Your task to perform on an android device: Open Google Chrome and open the bookmarks view Image 0: 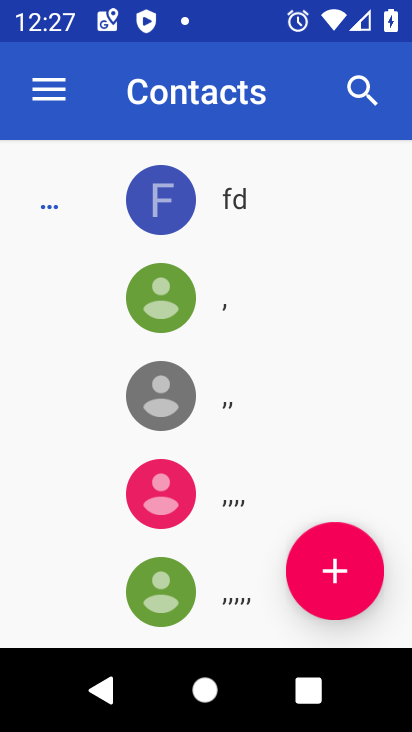
Step 0: press home button
Your task to perform on an android device: Open Google Chrome and open the bookmarks view Image 1: 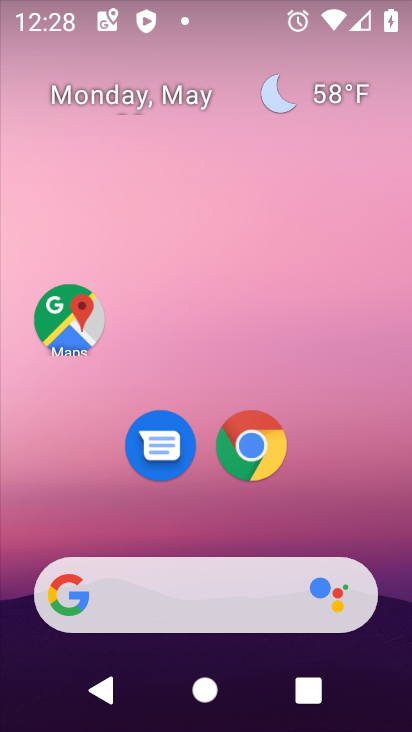
Step 1: drag from (211, 520) to (237, 42)
Your task to perform on an android device: Open Google Chrome and open the bookmarks view Image 2: 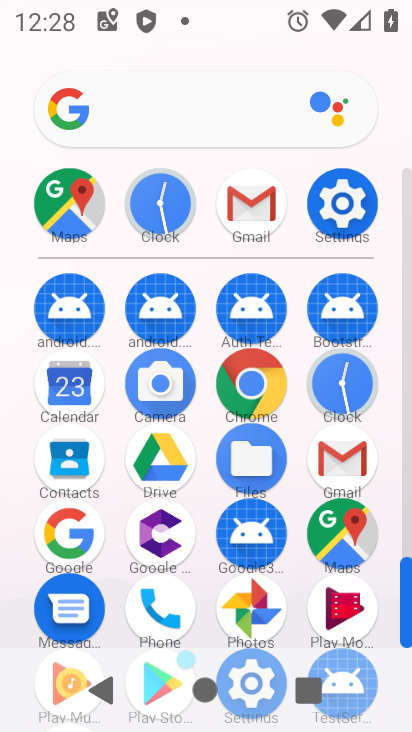
Step 2: click (251, 373)
Your task to perform on an android device: Open Google Chrome and open the bookmarks view Image 3: 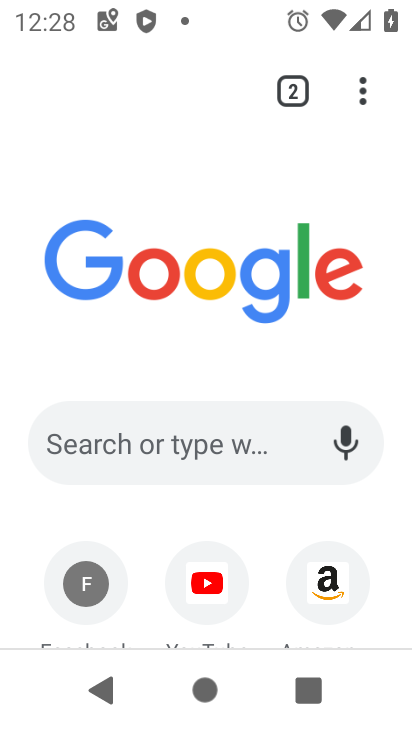
Step 3: click (363, 91)
Your task to perform on an android device: Open Google Chrome and open the bookmarks view Image 4: 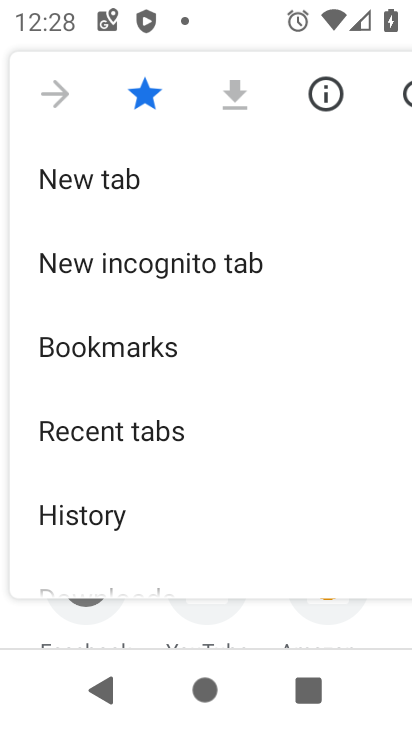
Step 4: click (185, 340)
Your task to perform on an android device: Open Google Chrome and open the bookmarks view Image 5: 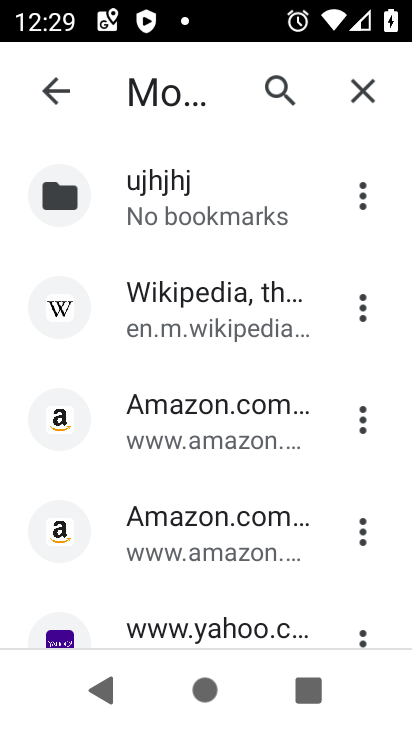
Step 5: task complete